Your task to perform on an android device: Search for Italian restaurants on Maps Image 0: 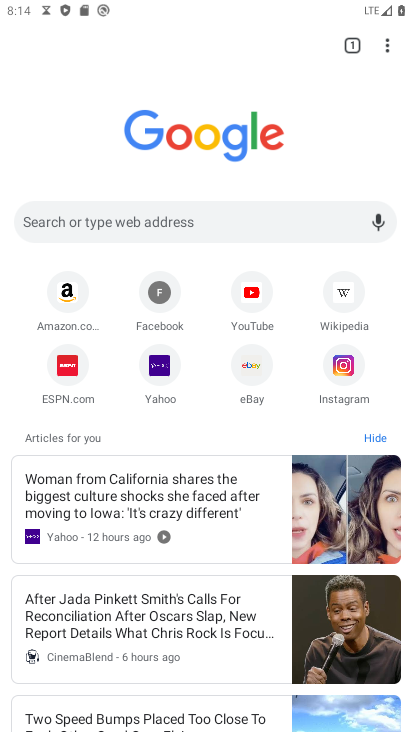
Step 0: press back button
Your task to perform on an android device: Search for Italian restaurants on Maps Image 1: 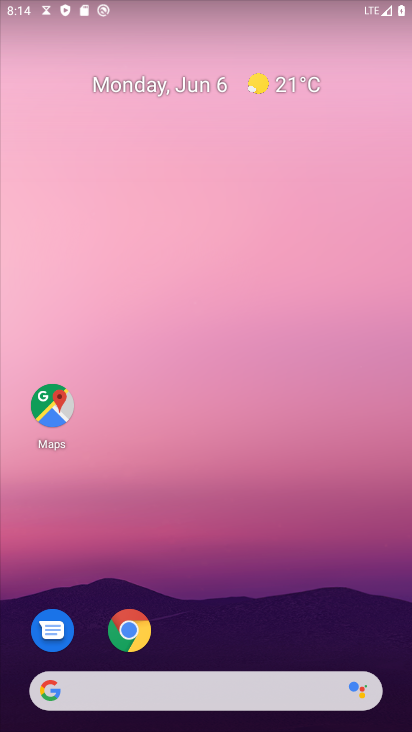
Step 1: click (49, 405)
Your task to perform on an android device: Search for Italian restaurants on Maps Image 2: 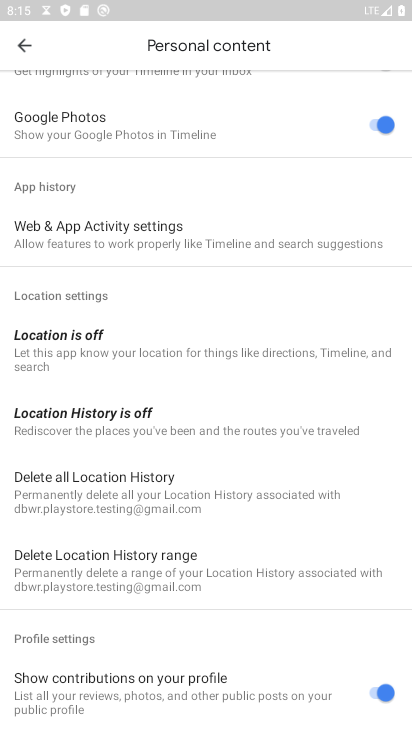
Step 2: click (21, 44)
Your task to perform on an android device: Search for Italian restaurants on Maps Image 3: 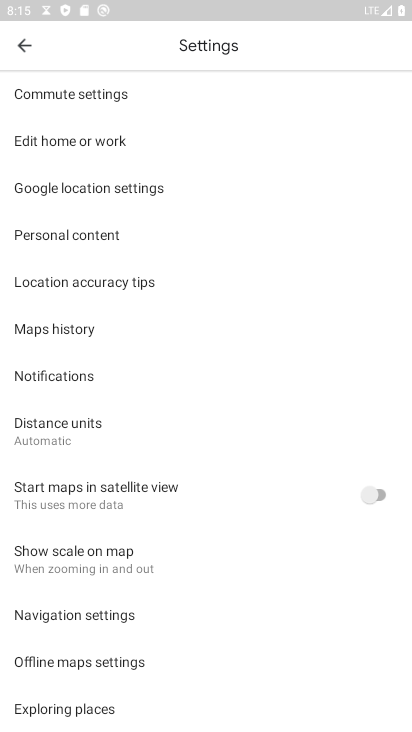
Step 3: click (21, 44)
Your task to perform on an android device: Search for Italian restaurants on Maps Image 4: 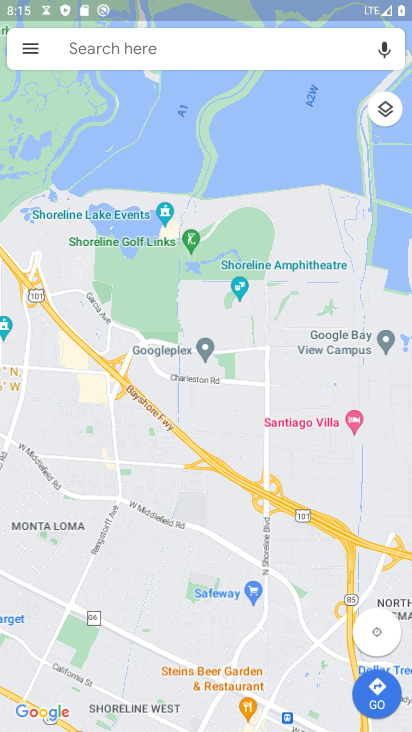
Step 4: click (103, 52)
Your task to perform on an android device: Search for Italian restaurants on Maps Image 5: 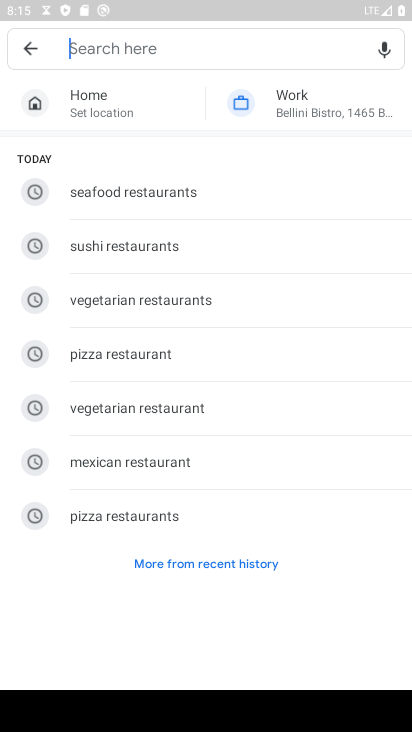
Step 5: type "Italian restaurants"
Your task to perform on an android device: Search for Italian restaurants on Maps Image 6: 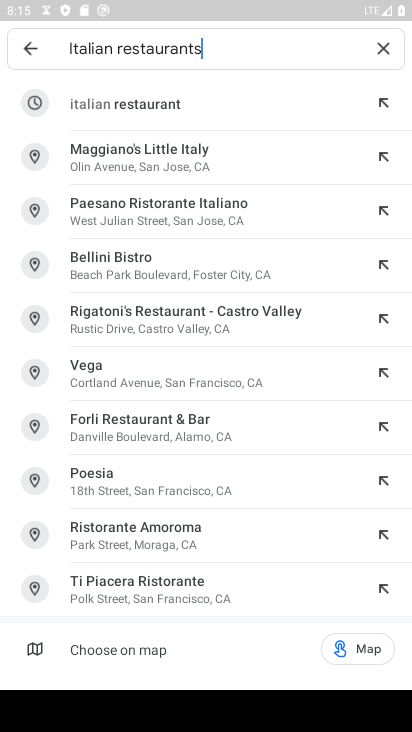
Step 6: click (139, 108)
Your task to perform on an android device: Search for Italian restaurants on Maps Image 7: 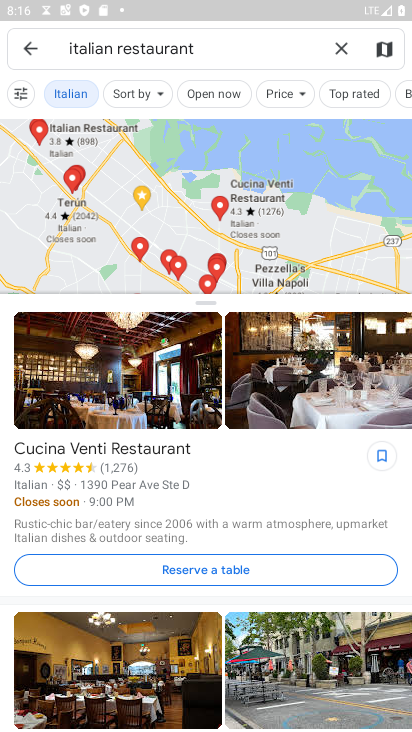
Step 7: task complete